Your task to perform on an android device: Open Amazon Image 0: 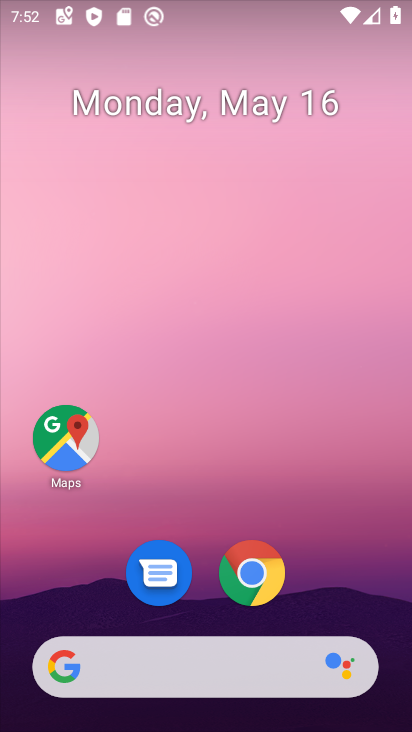
Step 0: drag from (346, 533) to (312, 6)
Your task to perform on an android device: Open Amazon Image 1: 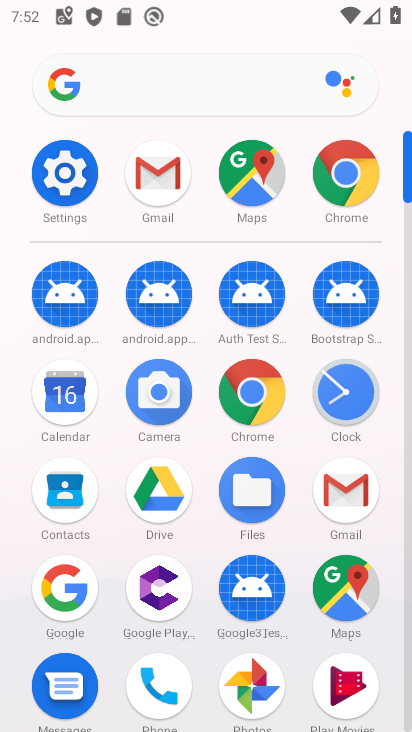
Step 1: click (349, 180)
Your task to perform on an android device: Open Amazon Image 2: 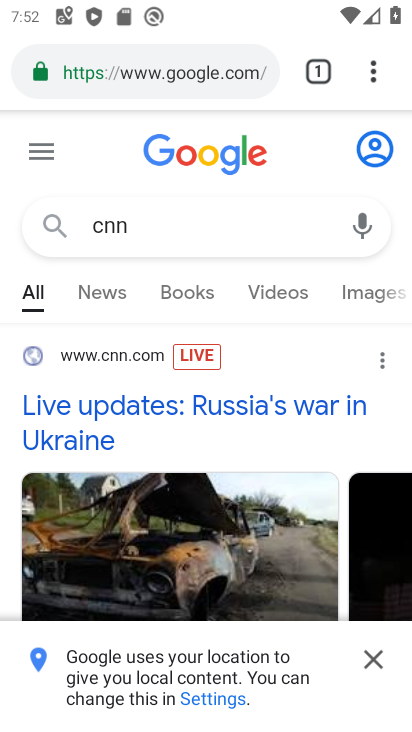
Step 2: click (162, 62)
Your task to perform on an android device: Open Amazon Image 3: 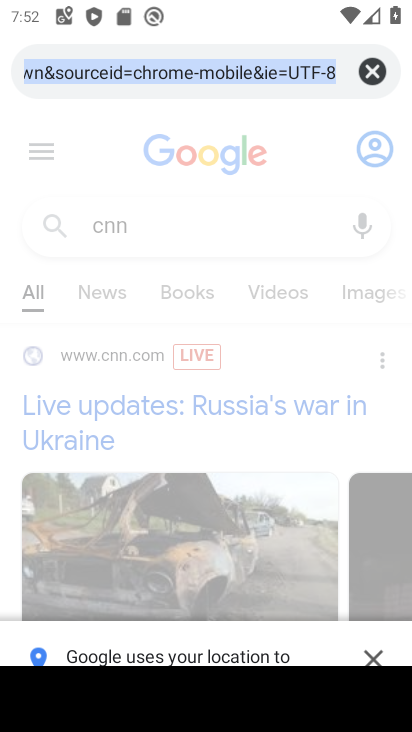
Step 3: click (370, 70)
Your task to perform on an android device: Open Amazon Image 4: 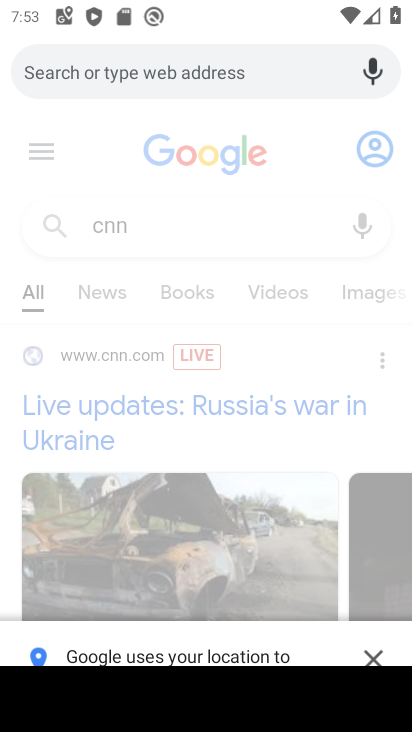
Step 4: type "amazon"
Your task to perform on an android device: Open Amazon Image 5: 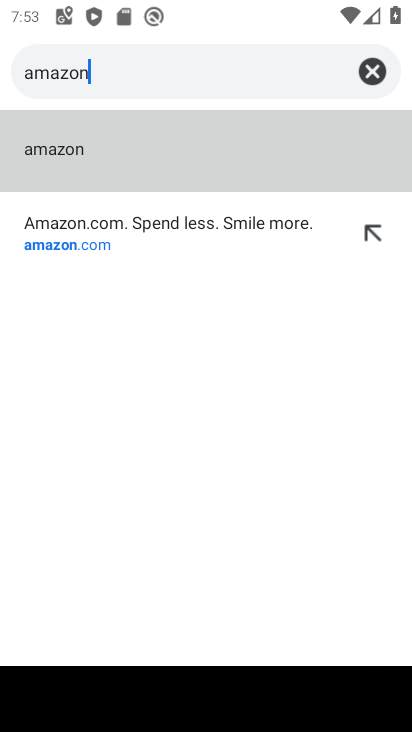
Step 5: click (68, 225)
Your task to perform on an android device: Open Amazon Image 6: 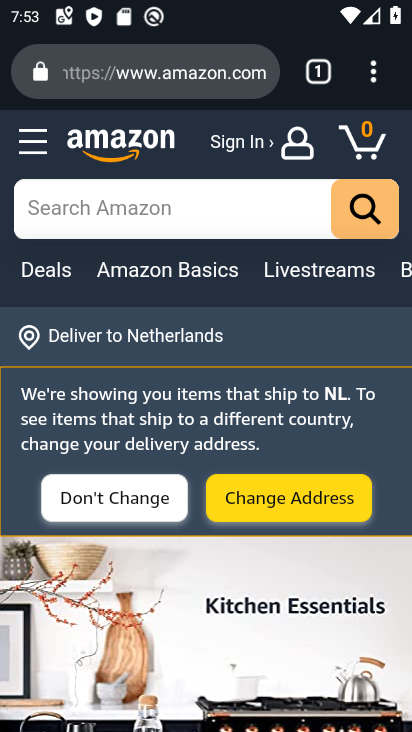
Step 6: task complete